Your task to perform on an android device: change the upload size in google photos Image 0: 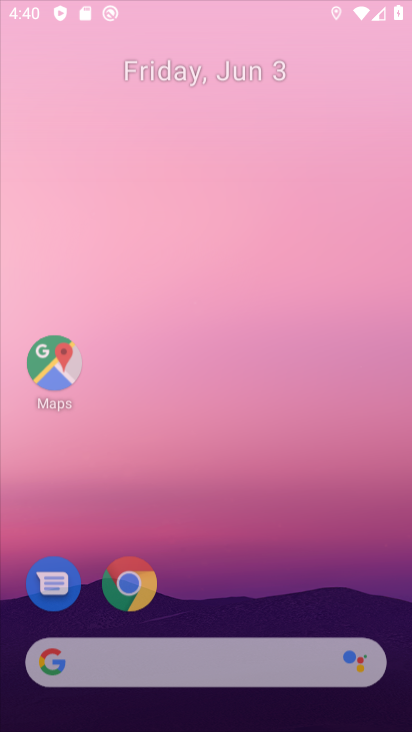
Step 0: click (260, 329)
Your task to perform on an android device: change the upload size in google photos Image 1: 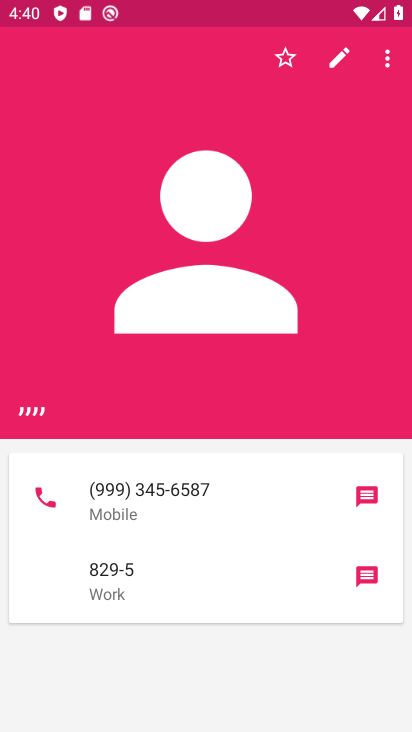
Step 1: press home button
Your task to perform on an android device: change the upload size in google photos Image 2: 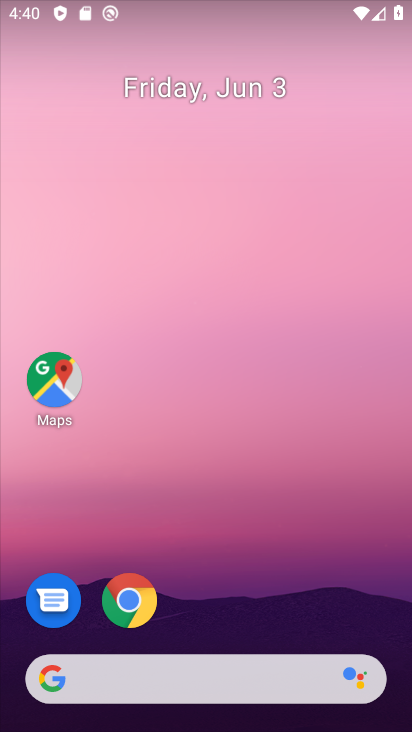
Step 2: drag from (254, 604) to (273, 203)
Your task to perform on an android device: change the upload size in google photos Image 3: 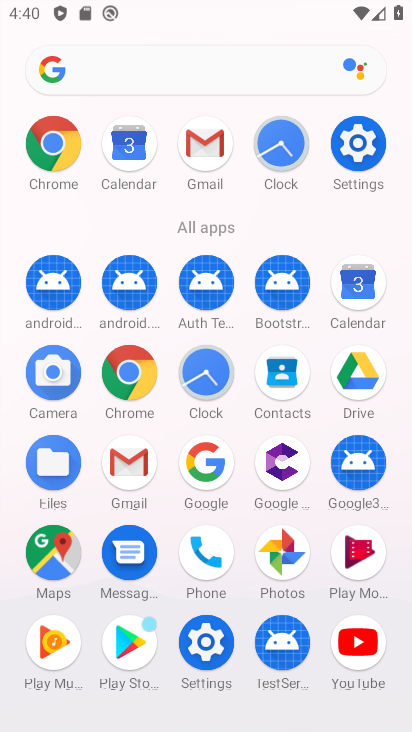
Step 3: click (277, 578)
Your task to perform on an android device: change the upload size in google photos Image 4: 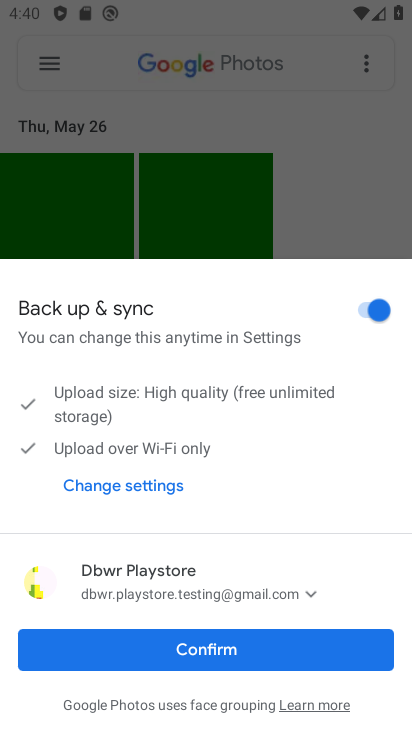
Step 4: click (225, 643)
Your task to perform on an android device: change the upload size in google photos Image 5: 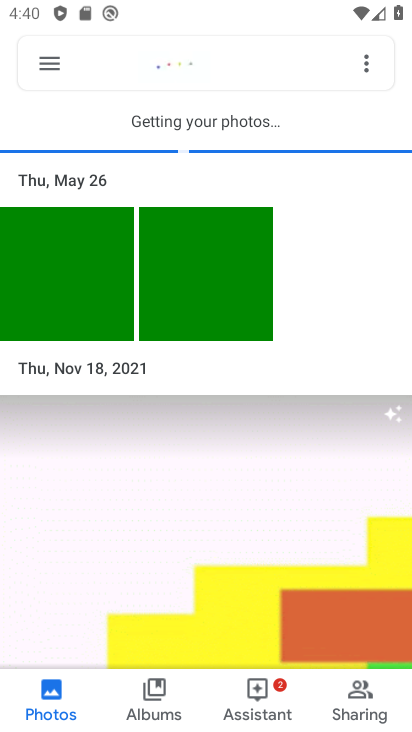
Step 5: click (44, 71)
Your task to perform on an android device: change the upload size in google photos Image 6: 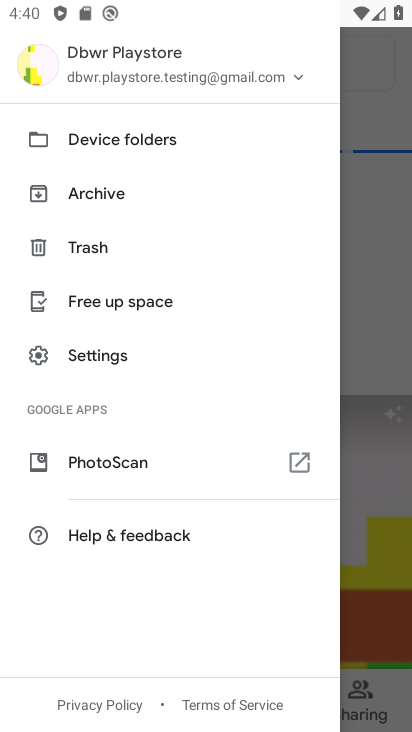
Step 6: click (96, 353)
Your task to perform on an android device: change the upload size in google photos Image 7: 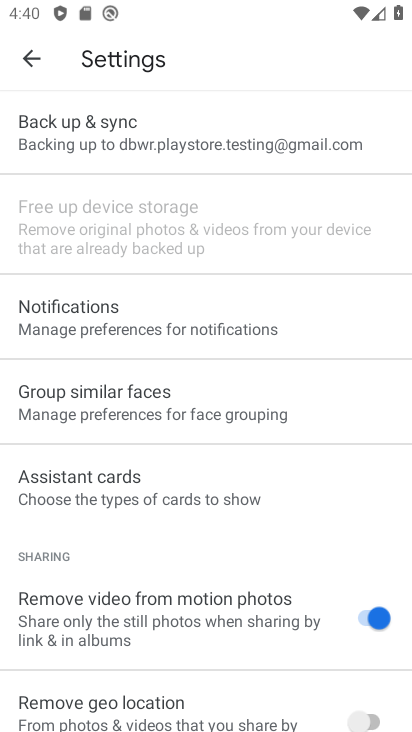
Step 7: click (131, 138)
Your task to perform on an android device: change the upload size in google photos Image 8: 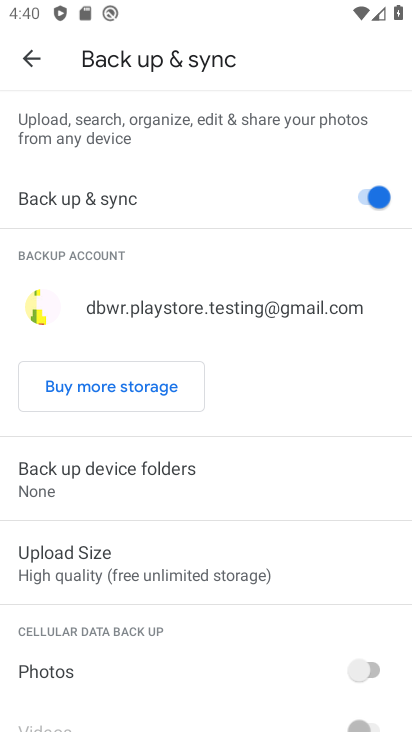
Step 8: click (114, 556)
Your task to perform on an android device: change the upload size in google photos Image 9: 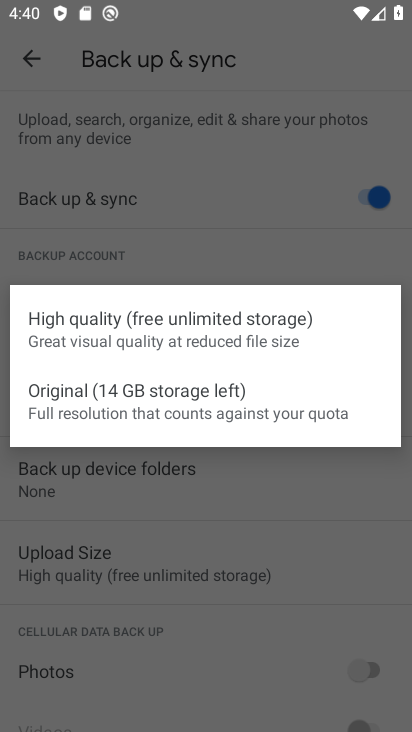
Step 9: click (114, 413)
Your task to perform on an android device: change the upload size in google photos Image 10: 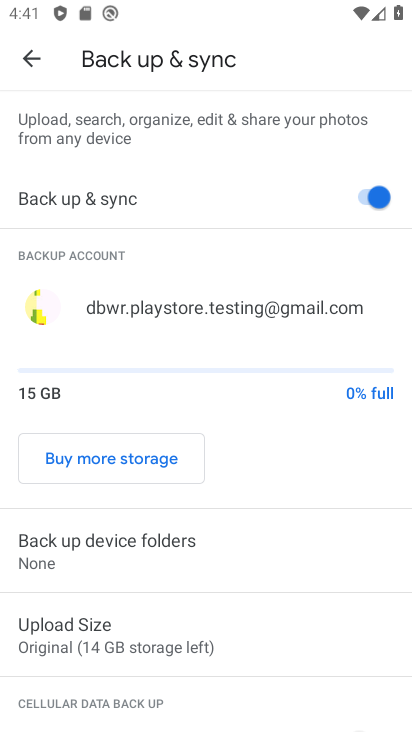
Step 10: task complete